Your task to perform on an android device: What's on my calendar tomorrow? Image 0: 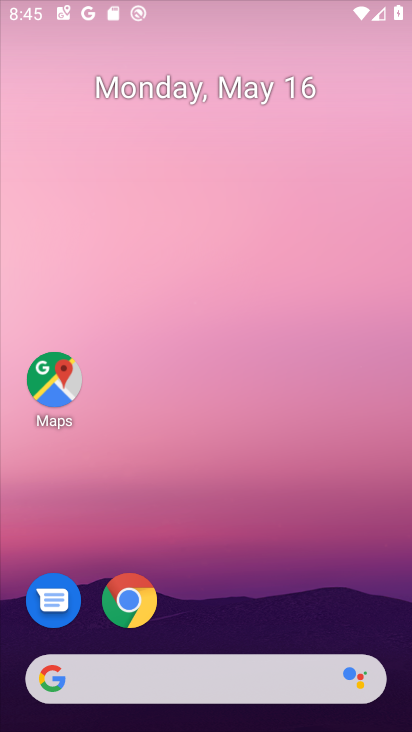
Step 0: drag from (328, 641) to (162, 157)
Your task to perform on an android device: What's on my calendar tomorrow? Image 1: 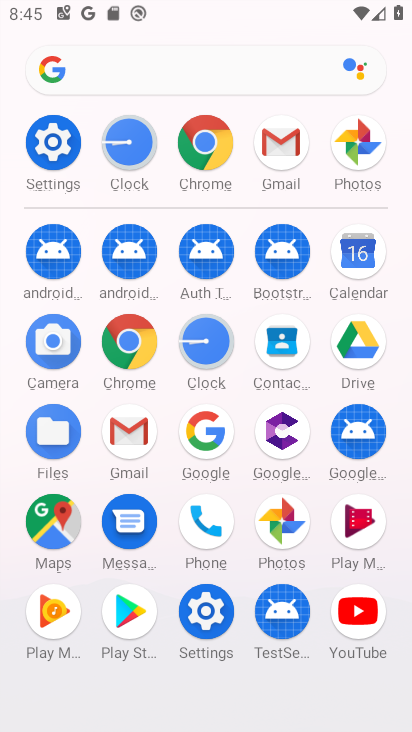
Step 1: click (357, 260)
Your task to perform on an android device: What's on my calendar tomorrow? Image 2: 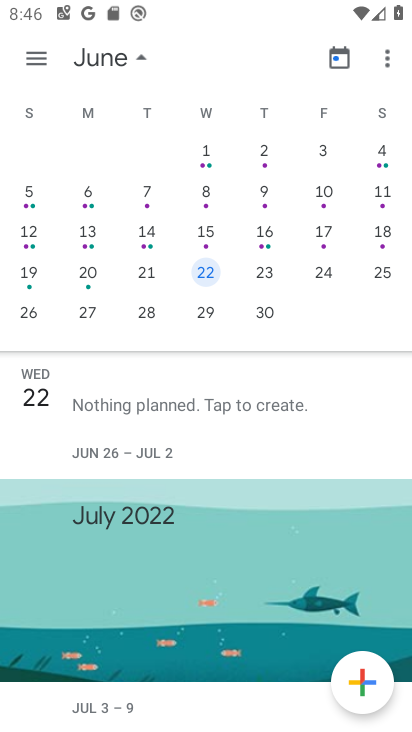
Step 2: drag from (169, 248) to (401, 299)
Your task to perform on an android device: What's on my calendar tomorrow? Image 3: 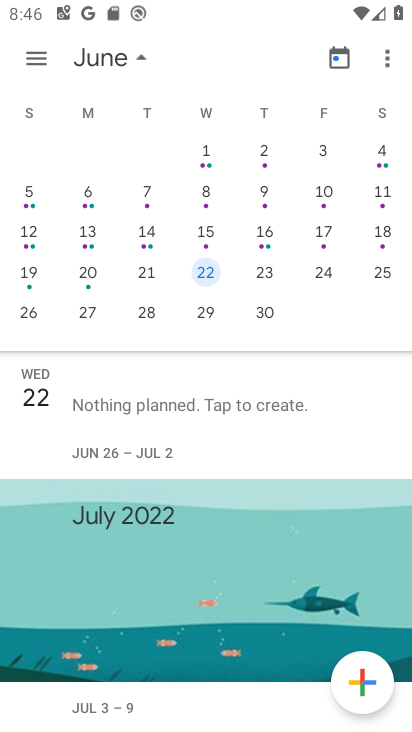
Step 3: drag from (64, 195) to (408, 17)
Your task to perform on an android device: What's on my calendar tomorrow? Image 4: 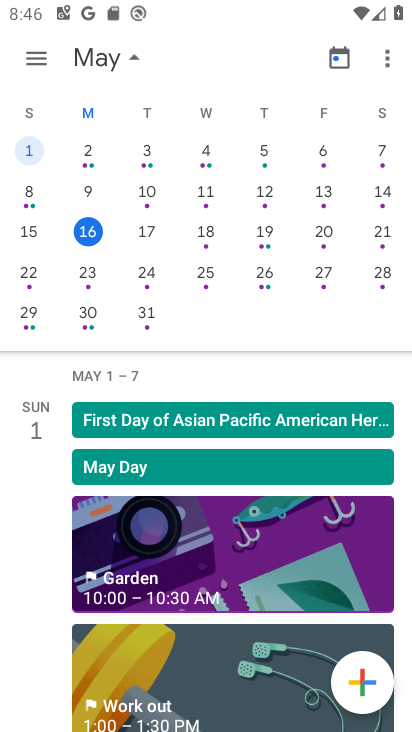
Step 4: drag from (150, 504) to (83, 36)
Your task to perform on an android device: What's on my calendar tomorrow? Image 5: 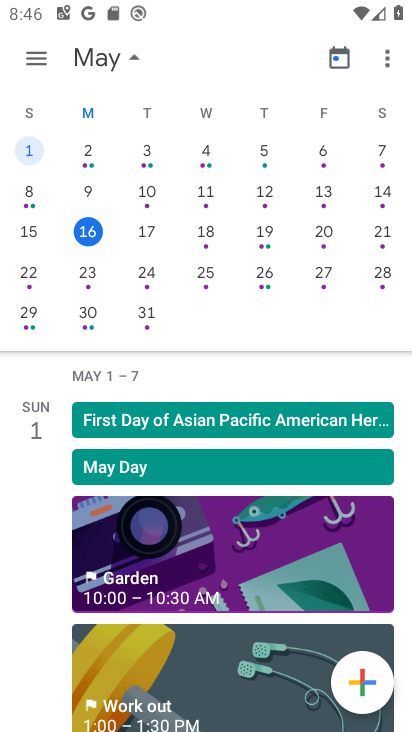
Step 5: drag from (148, 451) to (111, 8)
Your task to perform on an android device: What's on my calendar tomorrow? Image 6: 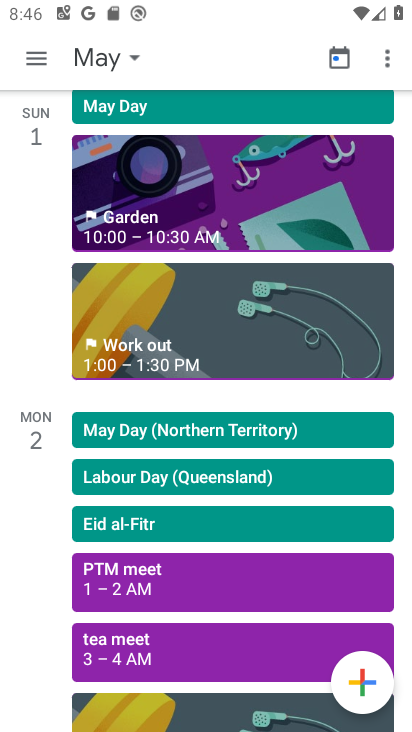
Step 6: drag from (164, 523) to (112, 129)
Your task to perform on an android device: What's on my calendar tomorrow? Image 7: 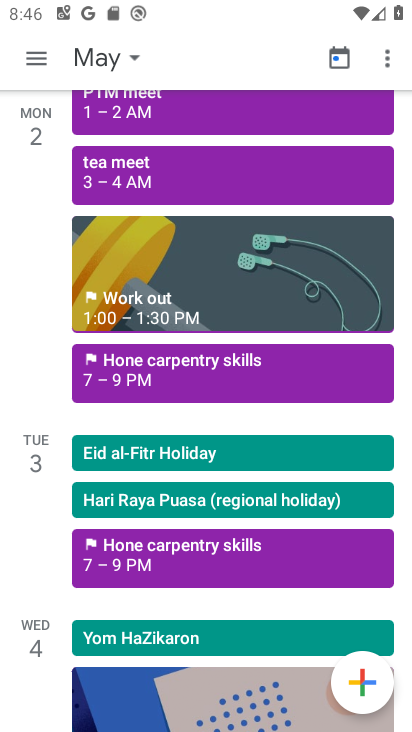
Step 7: drag from (111, 592) to (158, 69)
Your task to perform on an android device: What's on my calendar tomorrow? Image 8: 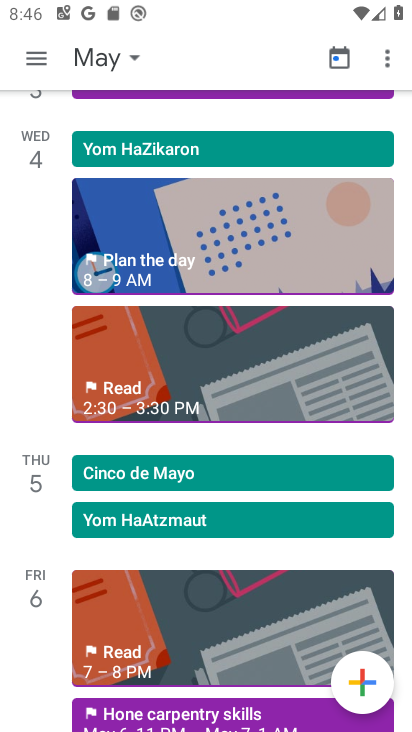
Step 8: drag from (217, 538) to (76, 191)
Your task to perform on an android device: What's on my calendar tomorrow? Image 9: 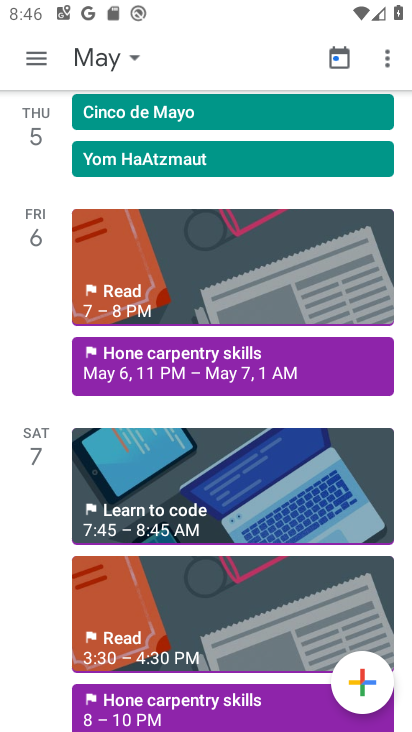
Step 9: drag from (131, 576) to (95, 252)
Your task to perform on an android device: What's on my calendar tomorrow? Image 10: 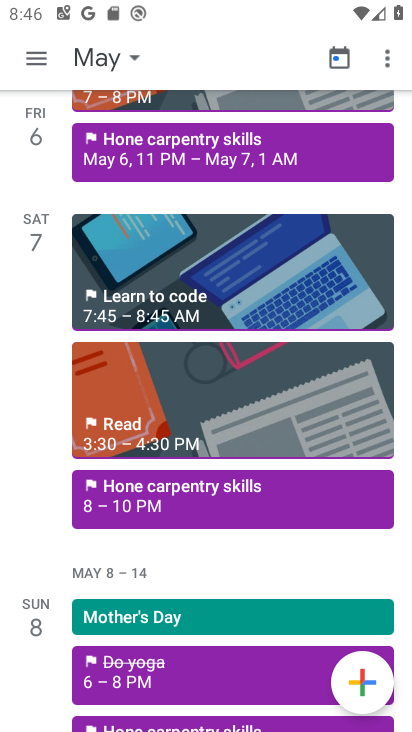
Step 10: drag from (170, 553) to (156, 296)
Your task to perform on an android device: What's on my calendar tomorrow? Image 11: 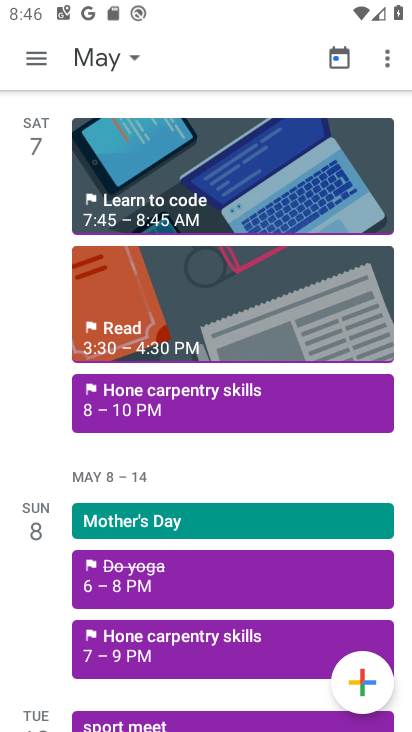
Step 11: drag from (201, 689) to (121, 163)
Your task to perform on an android device: What's on my calendar tomorrow? Image 12: 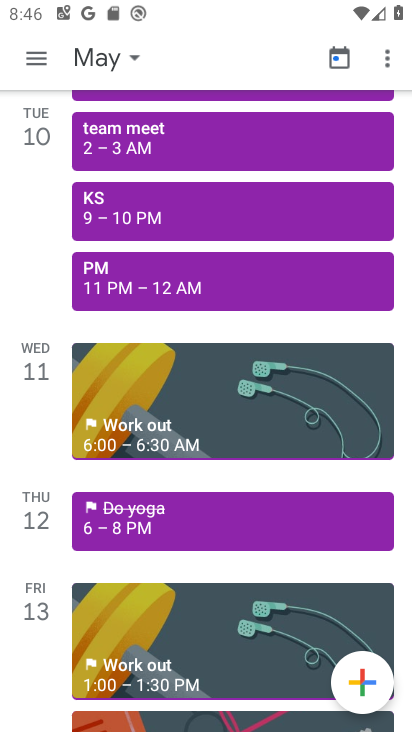
Step 12: drag from (134, 625) to (109, 336)
Your task to perform on an android device: What's on my calendar tomorrow? Image 13: 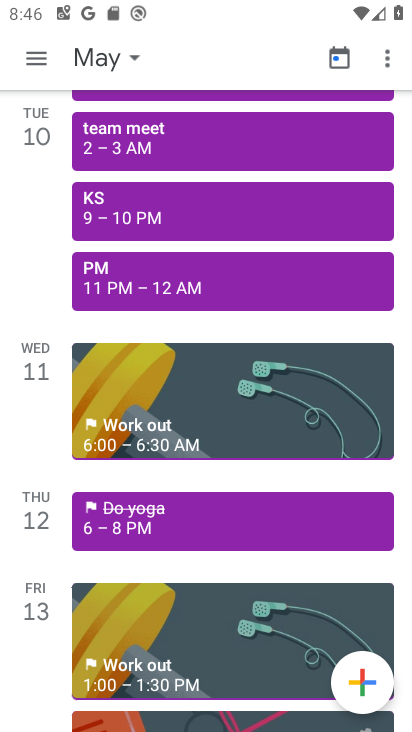
Step 13: drag from (145, 722) to (103, 424)
Your task to perform on an android device: What's on my calendar tomorrow? Image 14: 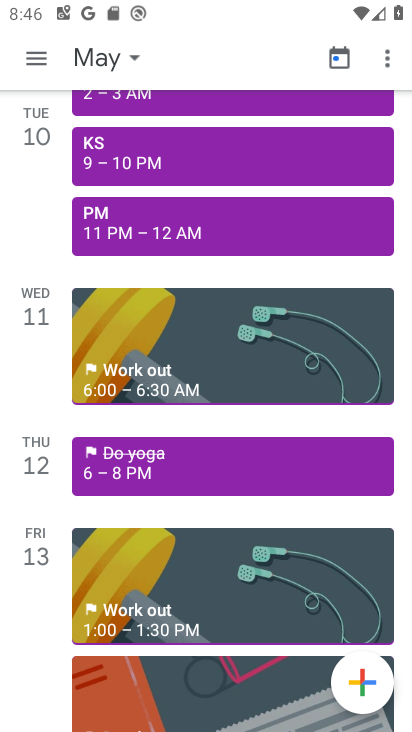
Step 14: drag from (34, 584) to (61, 435)
Your task to perform on an android device: What's on my calendar tomorrow? Image 15: 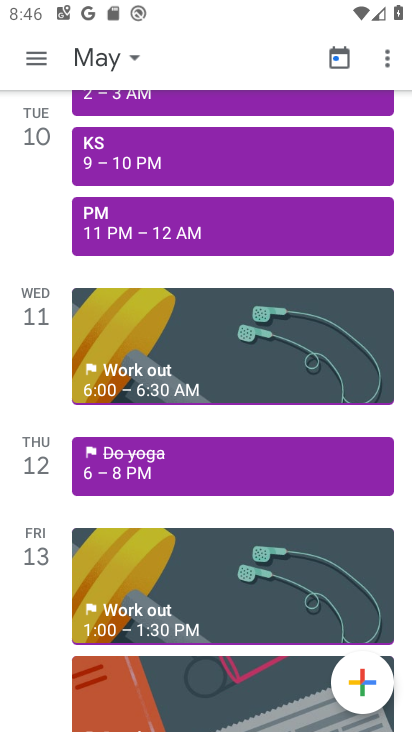
Step 15: drag from (226, 595) to (229, 242)
Your task to perform on an android device: What's on my calendar tomorrow? Image 16: 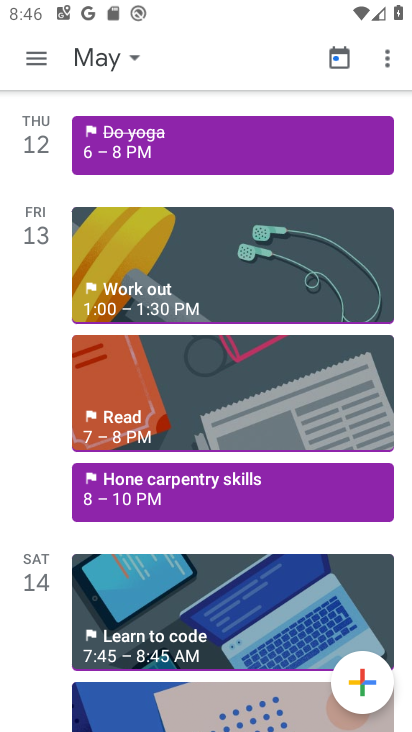
Step 16: click (375, 680)
Your task to perform on an android device: What's on my calendar tomorrow? Image 17: 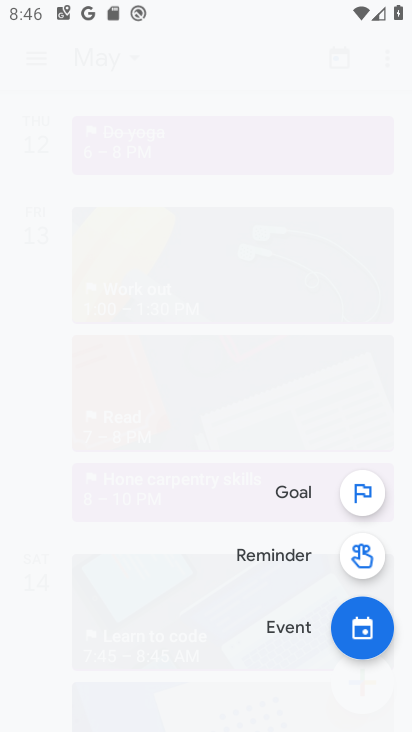
Step 17: task complete